Your task to perform on an android device: Open Maps and search for coffee Image 0: 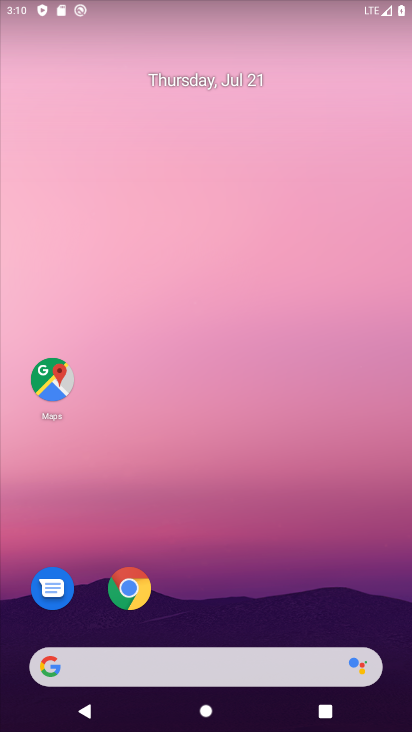
Step 0: click (36, 393)
Your task to perform on an android device: Open Maps and search for coffee Image 1: 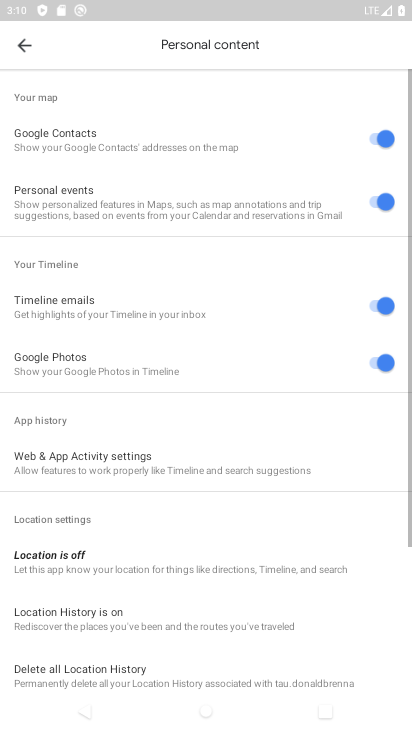
Step 1: click (32, 35)
Your task to perform on an android device: Open Maps and search for coffee Image 2: 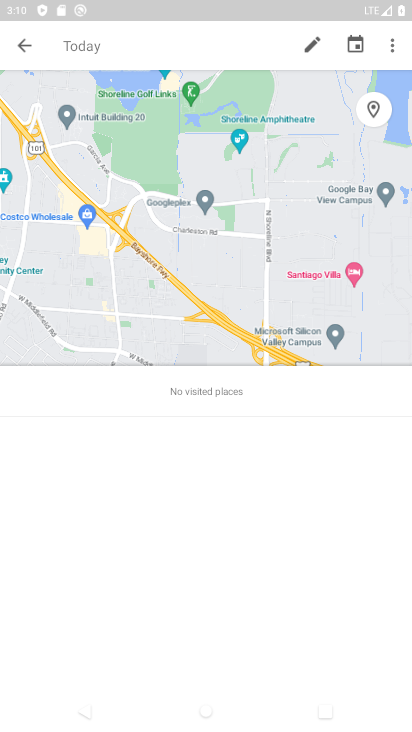
Step 2: click (13, 49)
Your task to perform on an android device: Open Maps and search for coffee Image 3: 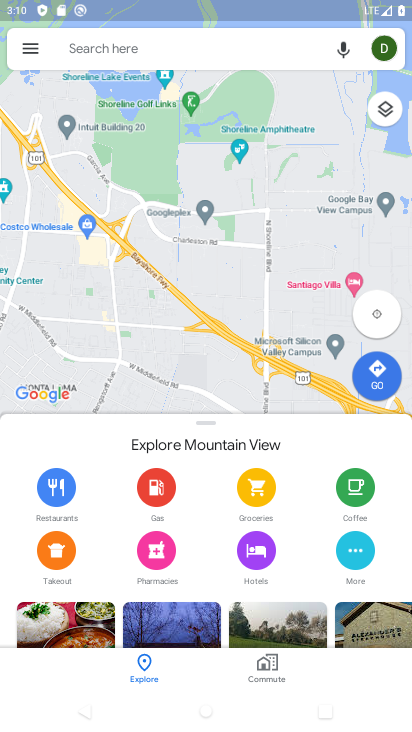
Step 3: click (151, 56)
Your task to perform on an android device: Open Maps and search for coffee Image 4: 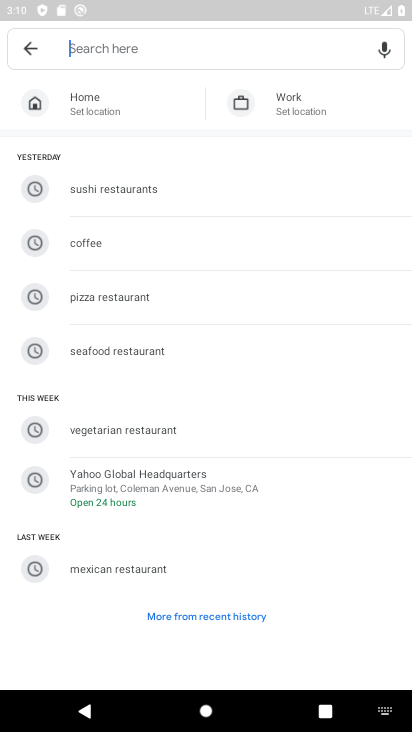
Step 4: type "coffee"
Your task to perform on an android device: Open Maps and search for coffee Image 5: 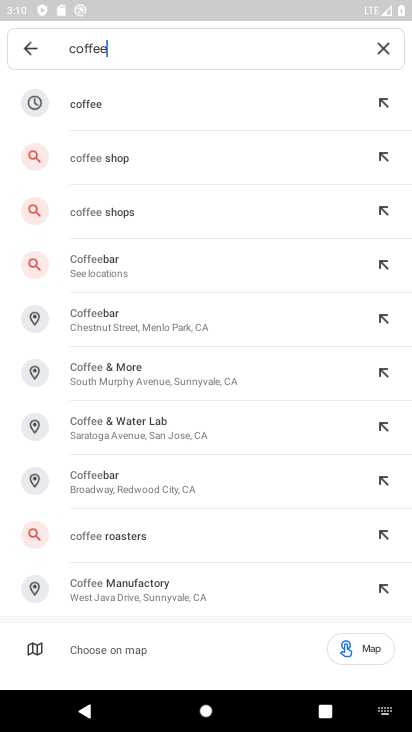
Step 5: click (121, 100)
Your task to perform on an android device: Open Maps and search for coffee Image 6: 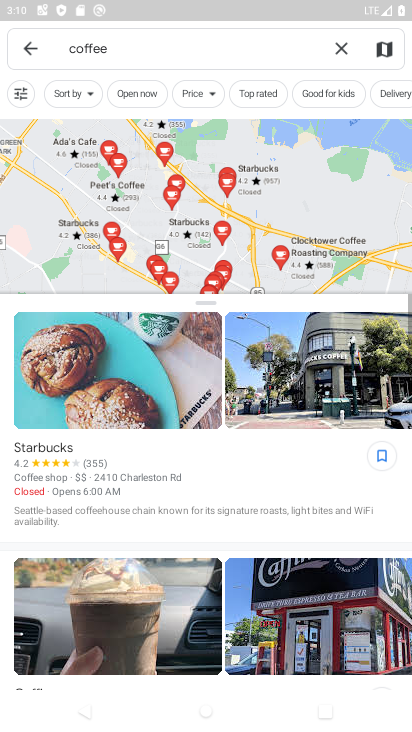
Step 6: task complete